Your task to perform on an android device: open app "Upside-Cash back on gas & food" (install if not already installed) and go to login screen Image 0: 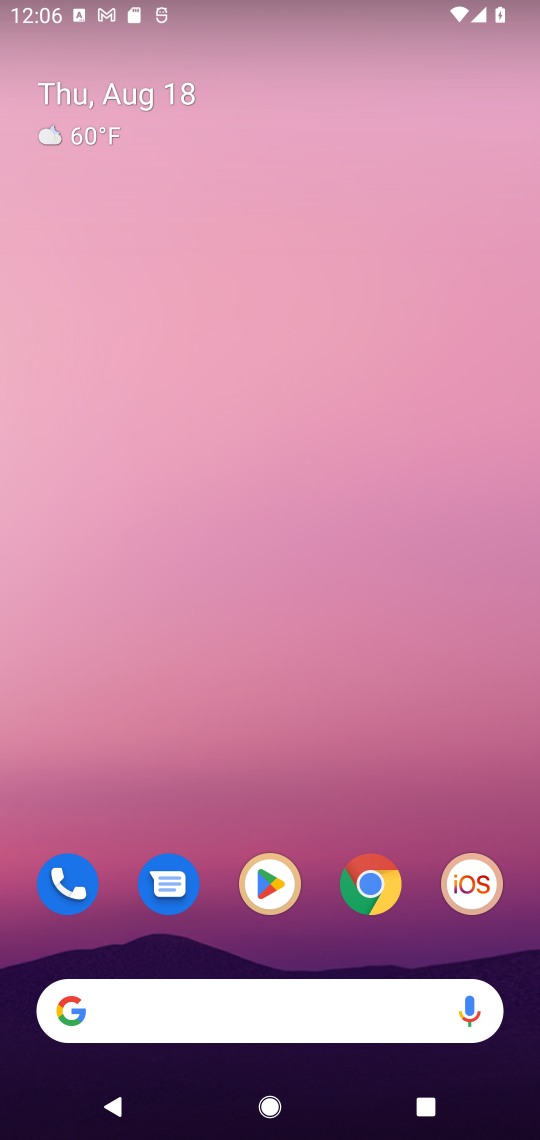
Step 0: drag from (160, 1033) to (255, 157)
Your task to perform on an android device: open app "Upside-Cash back on gas & food" (install if not already installed) and go to login screen Image 1: 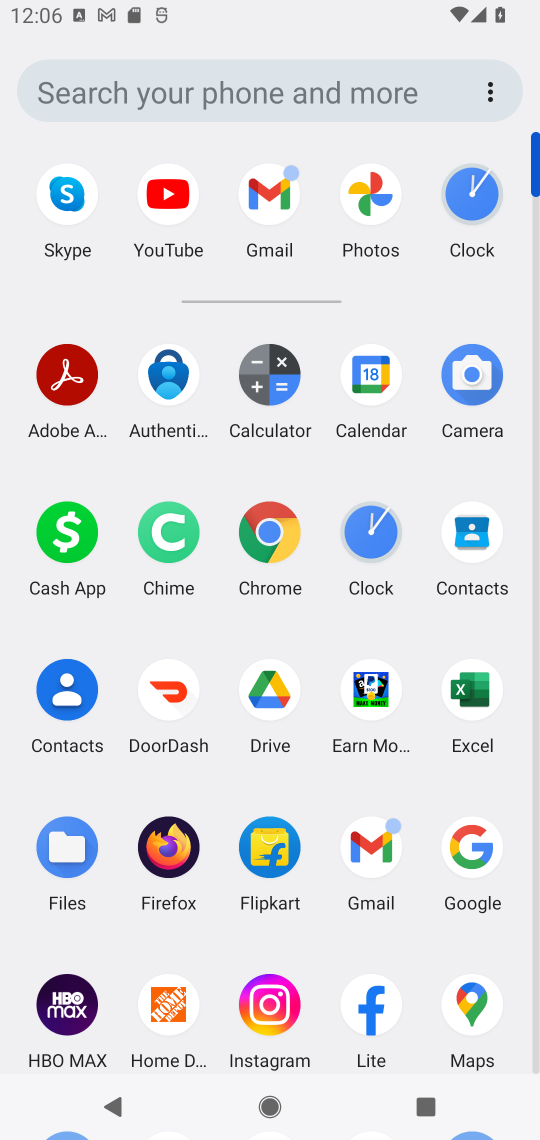
Step 1: press home button
Your task to perform on an android device: open app "Upside-Cash back on gas & food" (install if not already installed) and go to login screen Image 2: 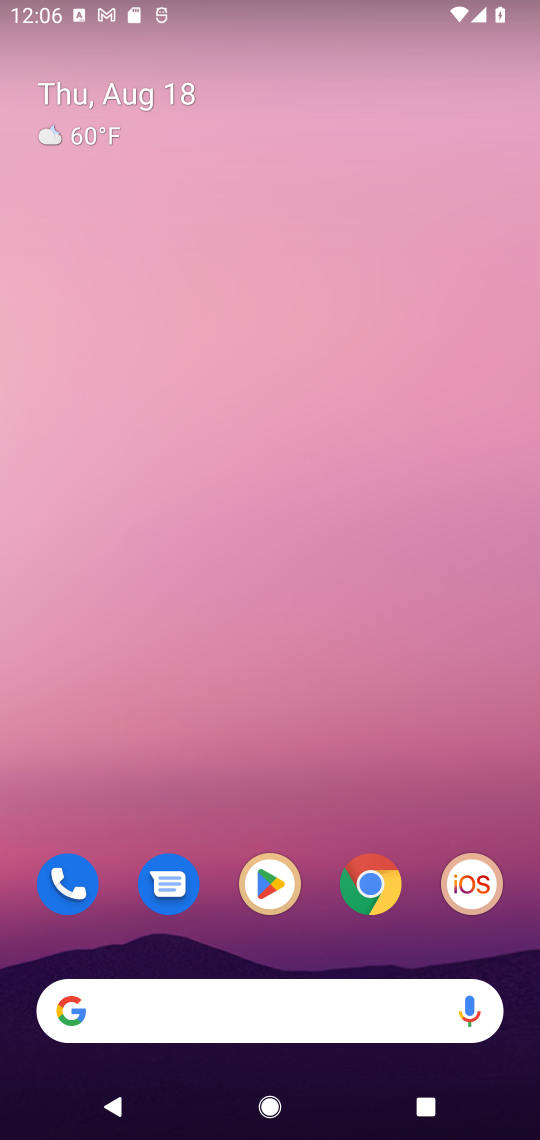
Step 2: drag from (230, 988) to (296, 157)
Your task to perform on an android device: open app "Upside-Cash back on gas & food" (install if not already installed) and go to login screen Image 3: 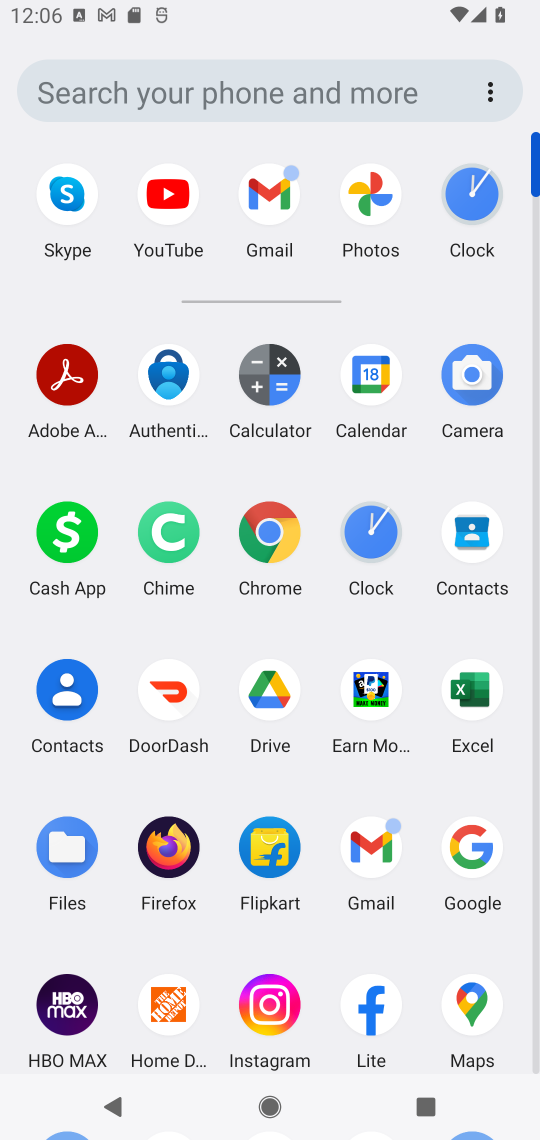
Step 3: drag from (308, 941) to (307, 286)
Your task to perform on an android device: open app "Upside-Cash back on gas & food" (install if not already installed) and go to login screen Image 4: 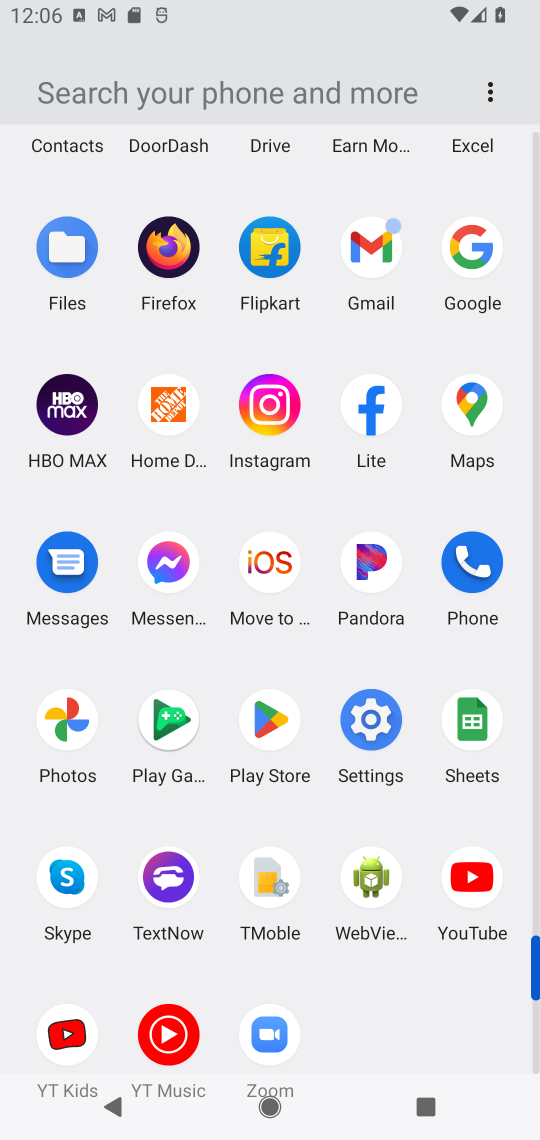
Step 4: click (275, 723)
Your task to perform on an android device: open app "Upside-Cash back on gas & food" (install if not already installed) and go to login screen Image 5: 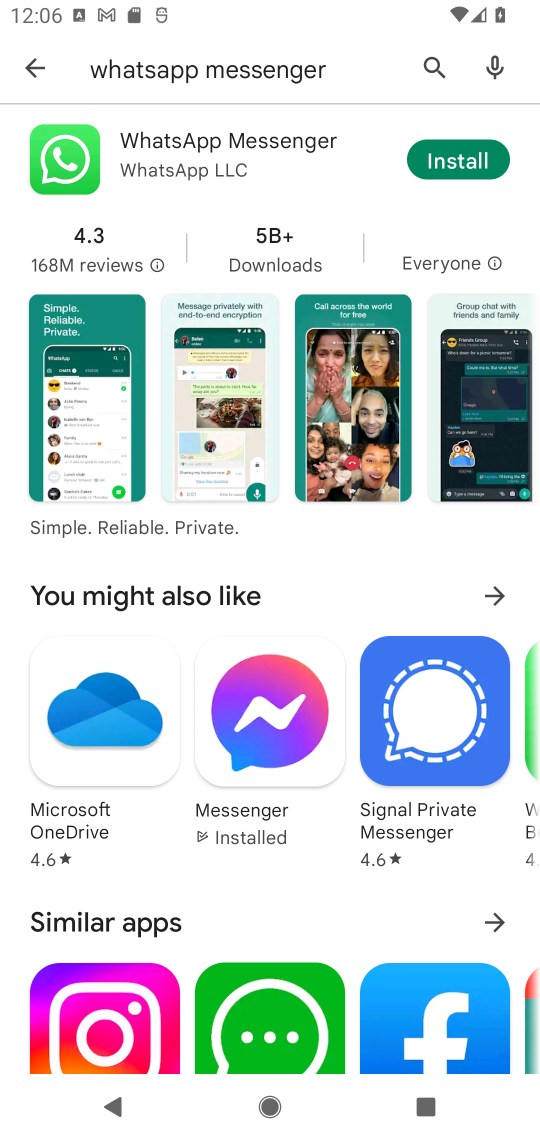
Step 5: press back button
Your task to perform on an android device: open app "Upside-Cash back on gas & food" (install if not already installed) and go to login screen Image 6: 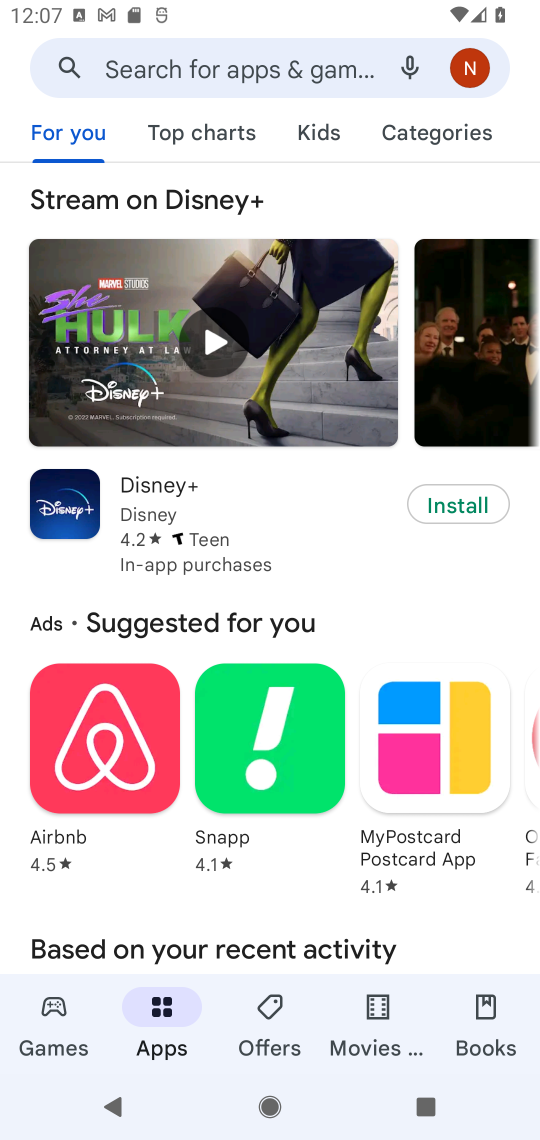
Step 6: click (277, 50)
Your task to perform on an android device: open app "Upside-Cash back on gas & food" (install if not already installed) and go to login screen Image 7: 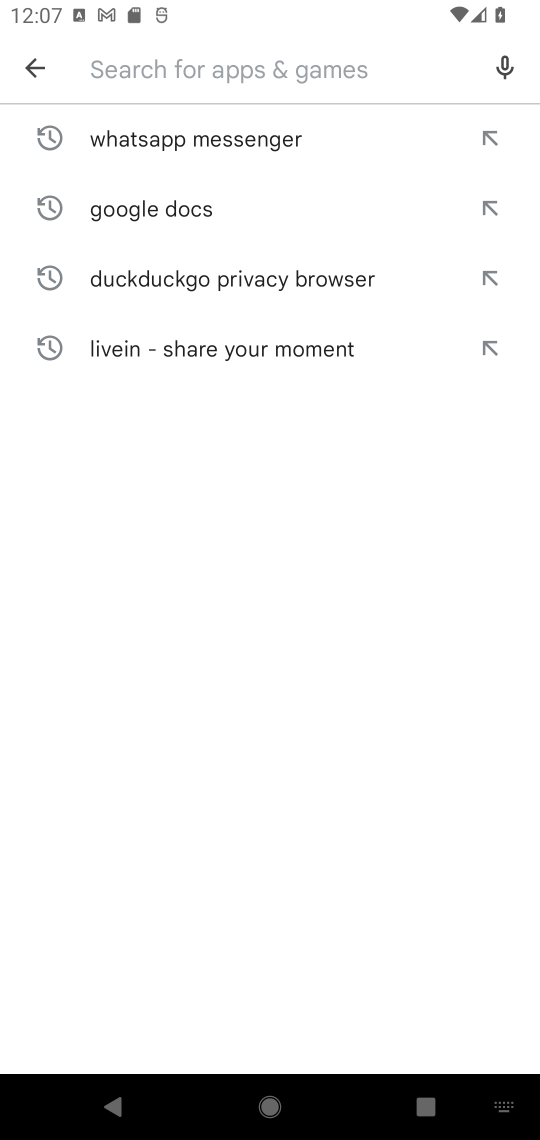
Step 7: click (275, 61)
Your task to perform on an android device: open app "Upside-Cash back on gas & food" (install if not already installed) and go to login screen Image 8: 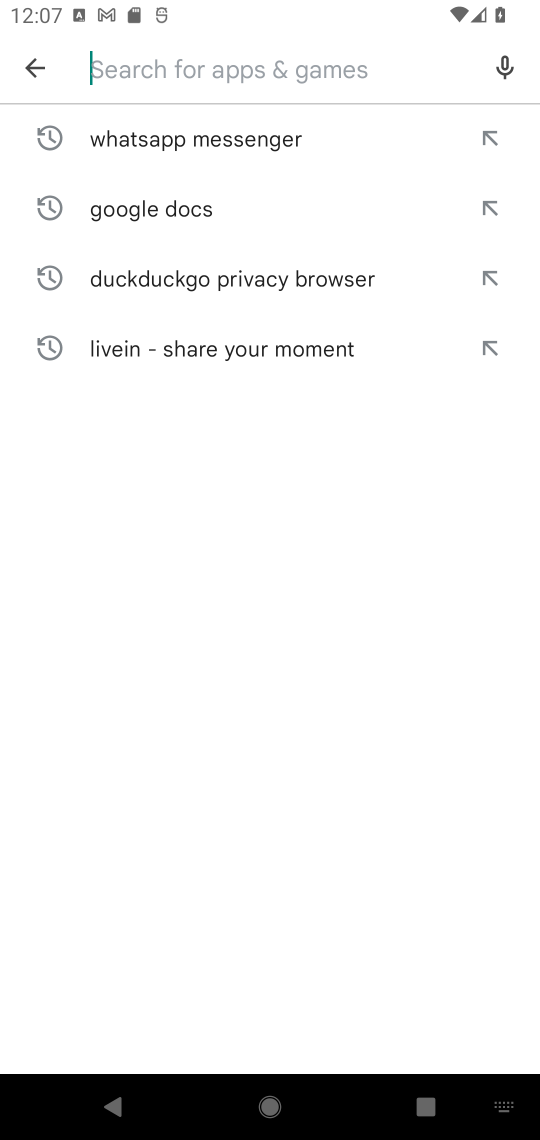
Step 8: type "Upside-Cash back on gas & food"
Your task to perform on an android device: open app "Upside-Cash back on gas & food" (install if not already installed) and go to login screen Image 9: 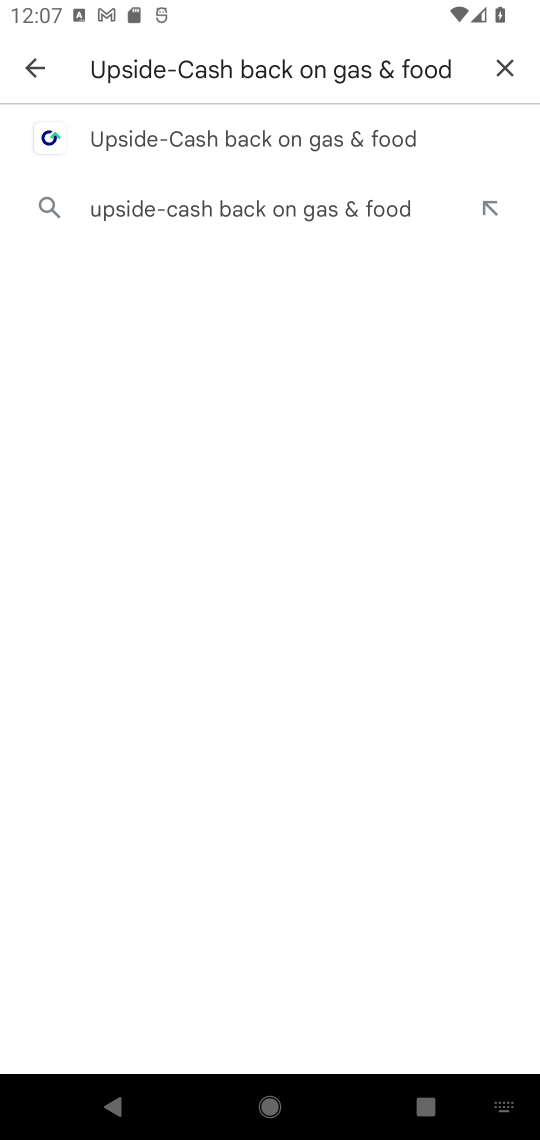
Step 9: click (271, 144)
Your task to perform on an android device: open app "Upside-Cash back on gas & food" (install if not already installed) and go to login screen Image 10: 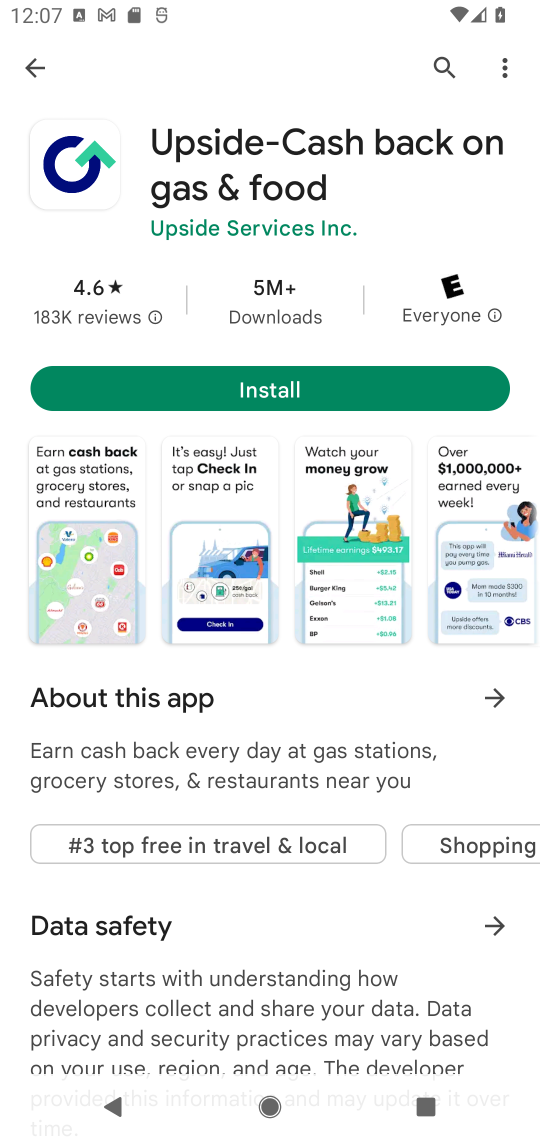
Step 10: click (255, 378)
Your task to perform on an android device: open app "Upside-Cash back on gas & food" (install if not already installed) and go to login screen Image 11: 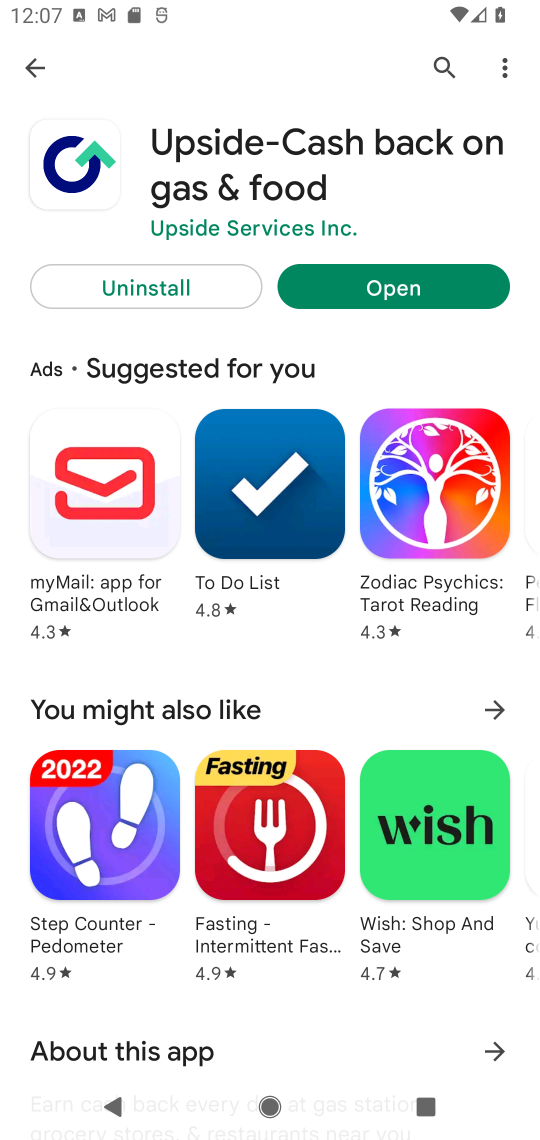
Step 11: click (336, 287)
Your task to perform on an android device: open app "Upside-Cash back on gas & food" (install if not already installed) and go to login screen Image 12: 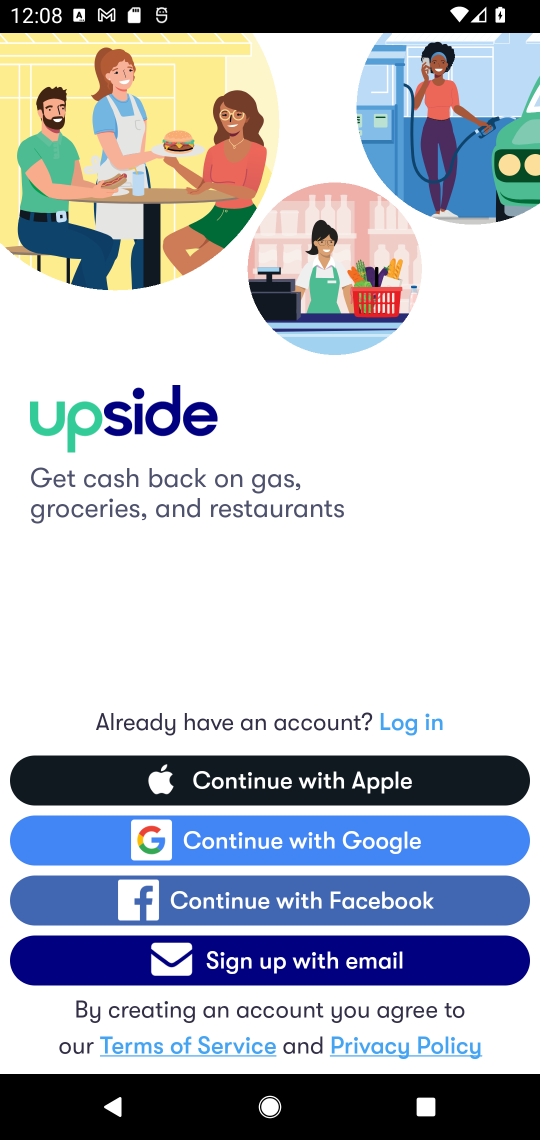
Step 12: click (422, 725)
Your task to perform on an android device: open app "Upside-Cash back on gas & food" (install if not already installed) and go to login screen Image 13: 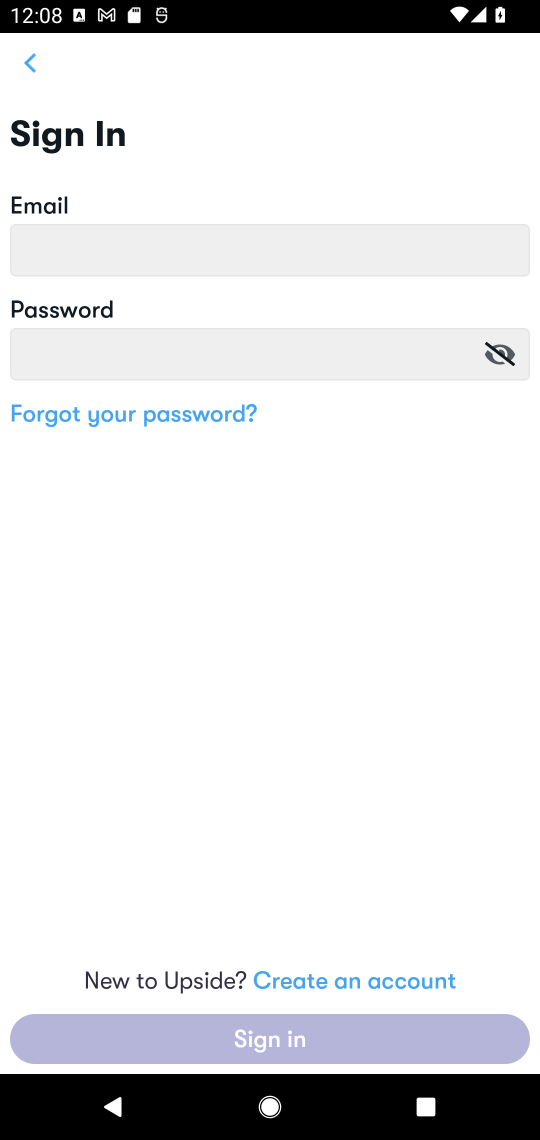
Step 13: task complete